Your task to perform on an android device: Open calendar and show me the second week of next month Image 0: 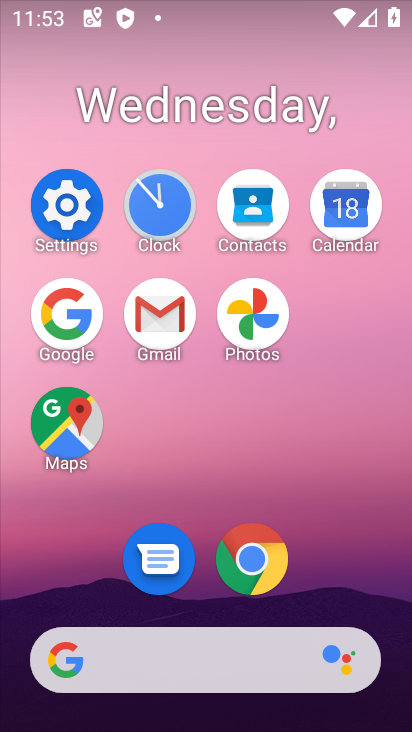
Step 0: click (351, 210)
Your task to perform on an android device: Open calendar and show me the second week of next month Image 1: 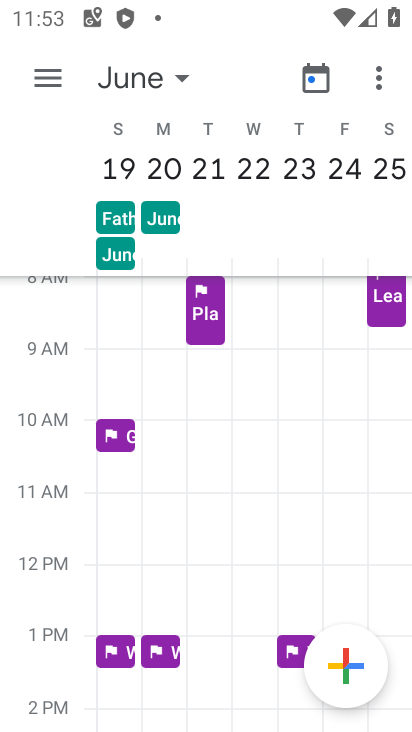
Step 1: task complete